Your task to perform on an android device: Clear all items from cart on ebay.com. Add logitech g910 to the cart on ebay.com Image 0: 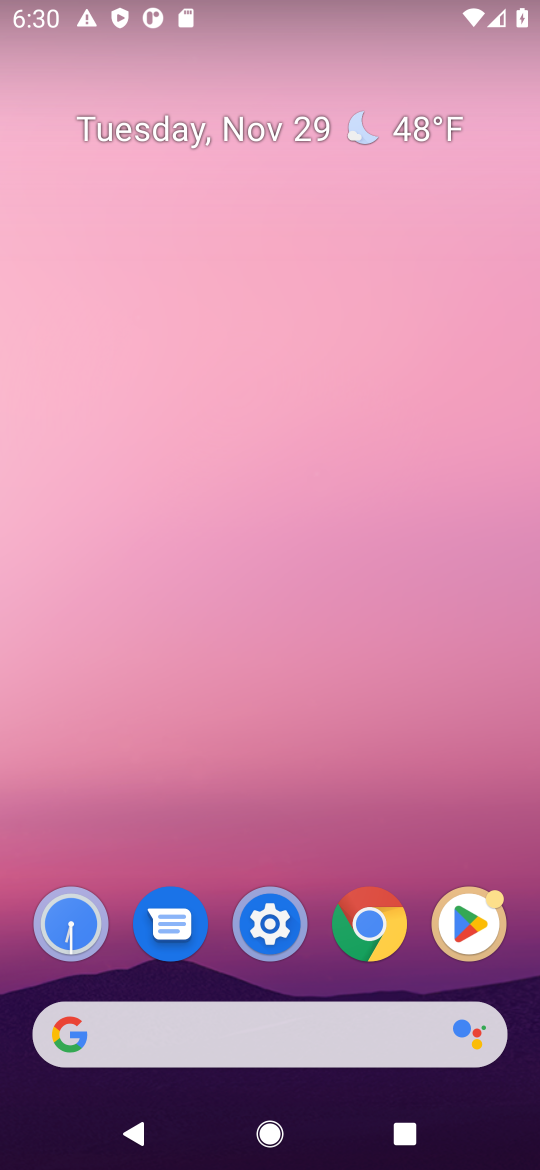
Step 0: click (270, 1024)
Your task to perform on an android device: Clear all items from cart on ebay.com. Add logitech g910 to the cart on ebay.com Image 1: 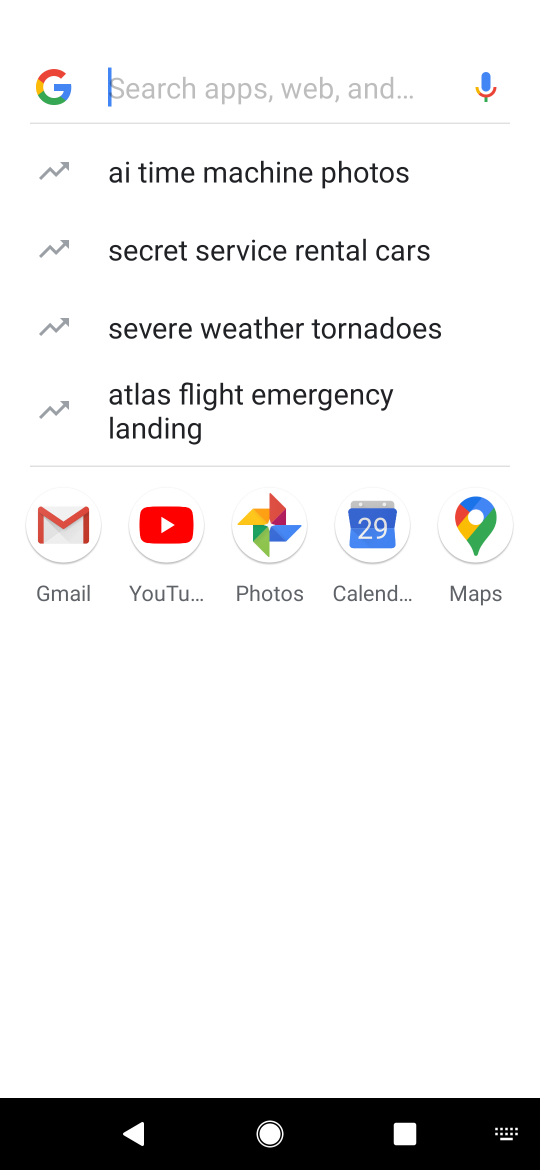
Step 1: type "ebbay.com"
Your task to perform on an android device: Clear all items from cart on ebay.com. Add logitech g910 to the cart on ebay.com Image 2: 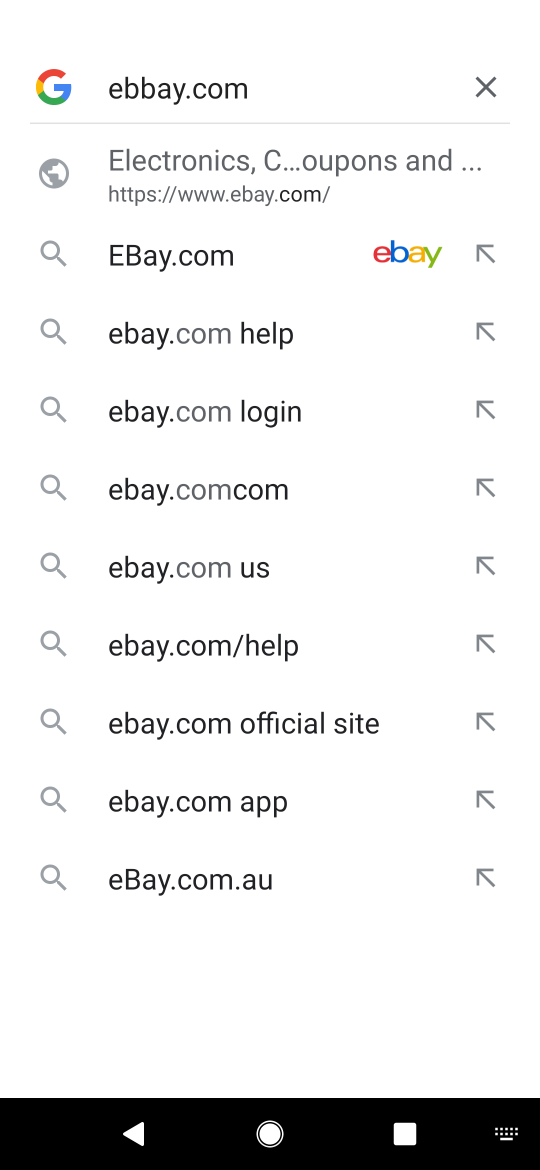
Step 2: click (158, 174)
Your task to perform on an android device: Clear all items from cart on ebay.com. Add logitech g910 to the cart on ebay.com Image 3: 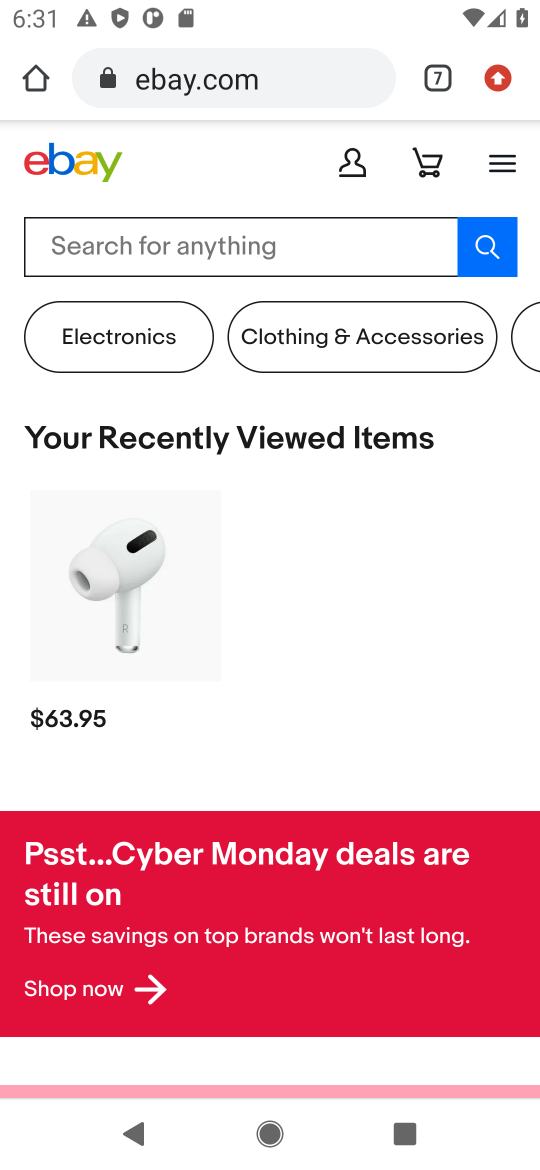
Step 3: click (332, 246)
Your task to perform on an android device: Clear all items from cart on ebay.com. Add logitech g910 to the cart on ebay.com Image 4: 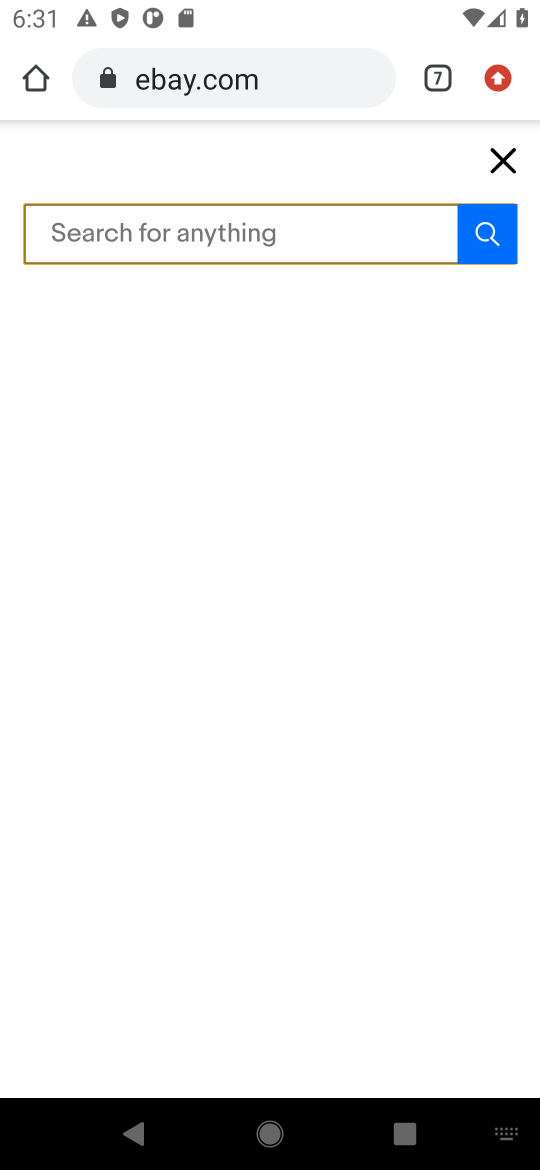
Step 4: type "logitech g910"
Your task to perform on an android device: Clear all items from cart on ebay.com. Add logitech g910 to the cart on ebay.com Image 5: 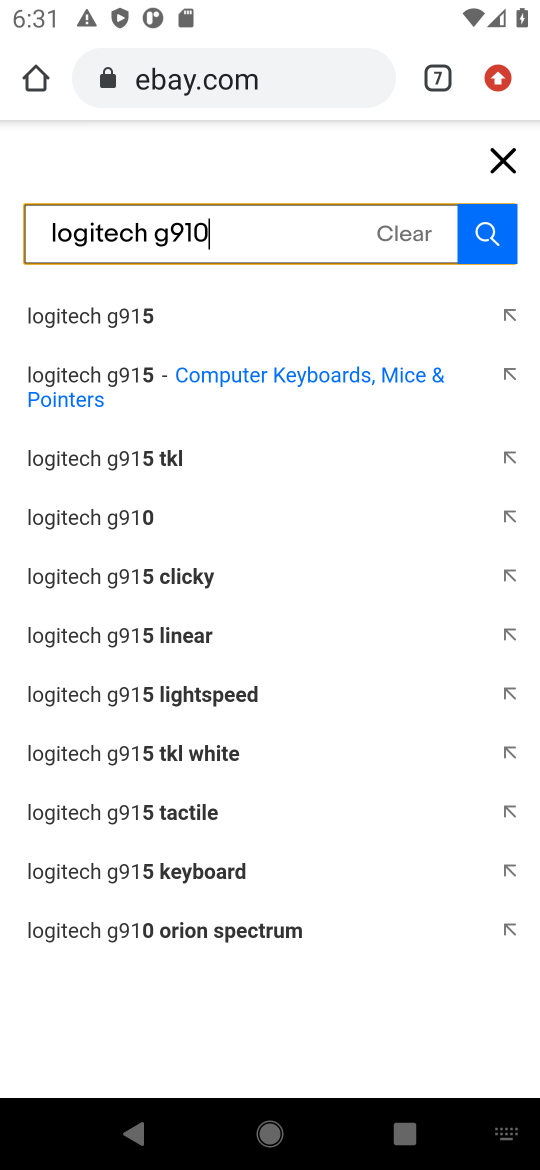
Step 5: click (476, 238)
Your task to perform on an android device: Clear all items from cart on ebay.com. Add logitech g910 to the cart on ebay.com Image 6: 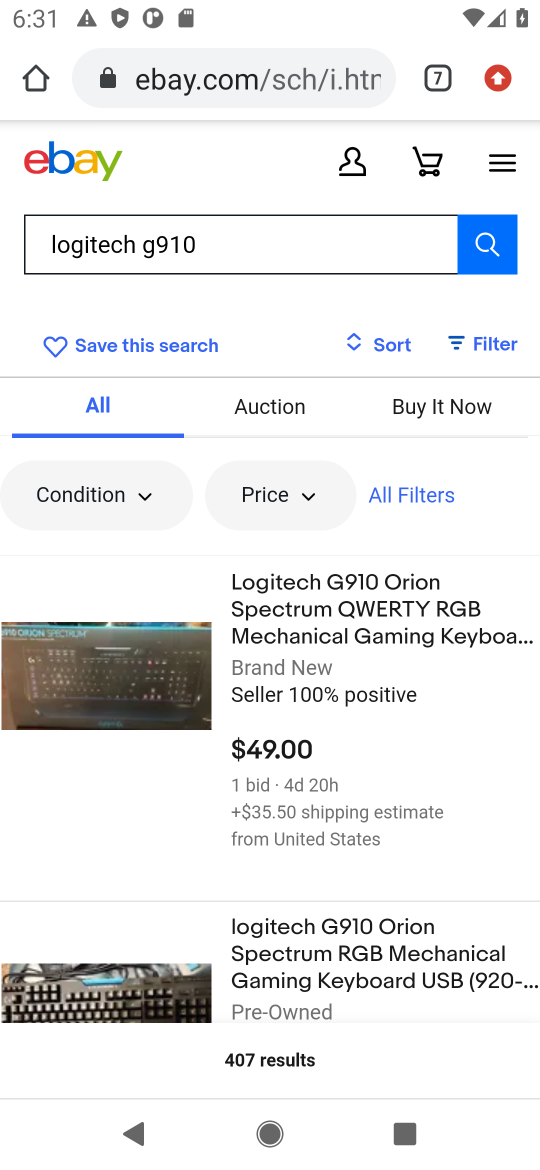
Step 6: click (298, 603)
Your task to perform on an android device: Clear all items from cart on ebay.com. Add logitech g910 to the cart on ebay.com Image 7: 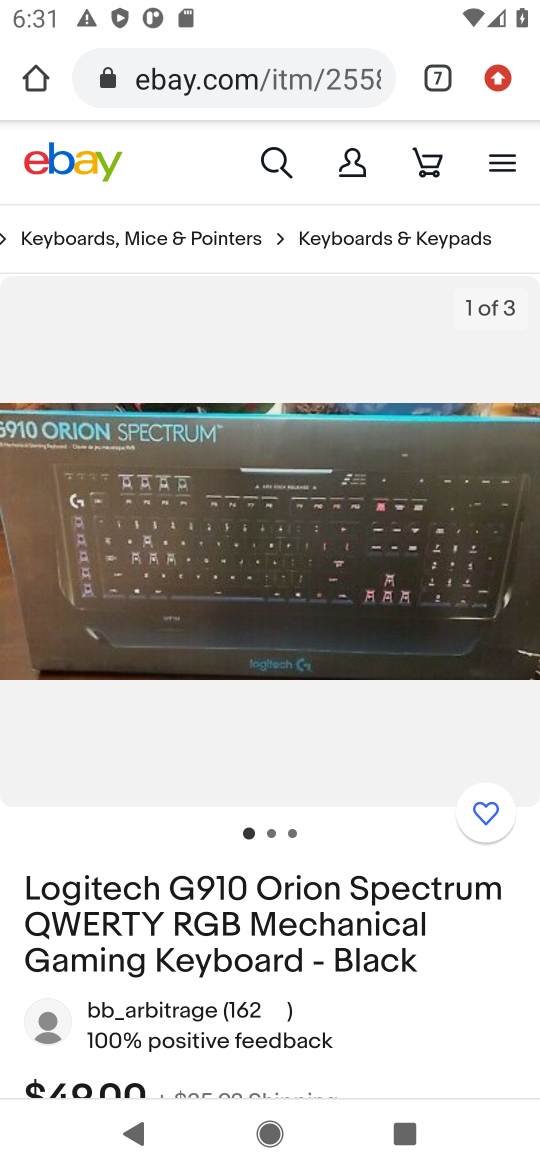
Step 7: drag from (234, 831) to (228, 339)
Your task to perform on an android device: Clear all items from cart on ebay.com. Add logitech g910 to the cart on ebay.com Image 8: 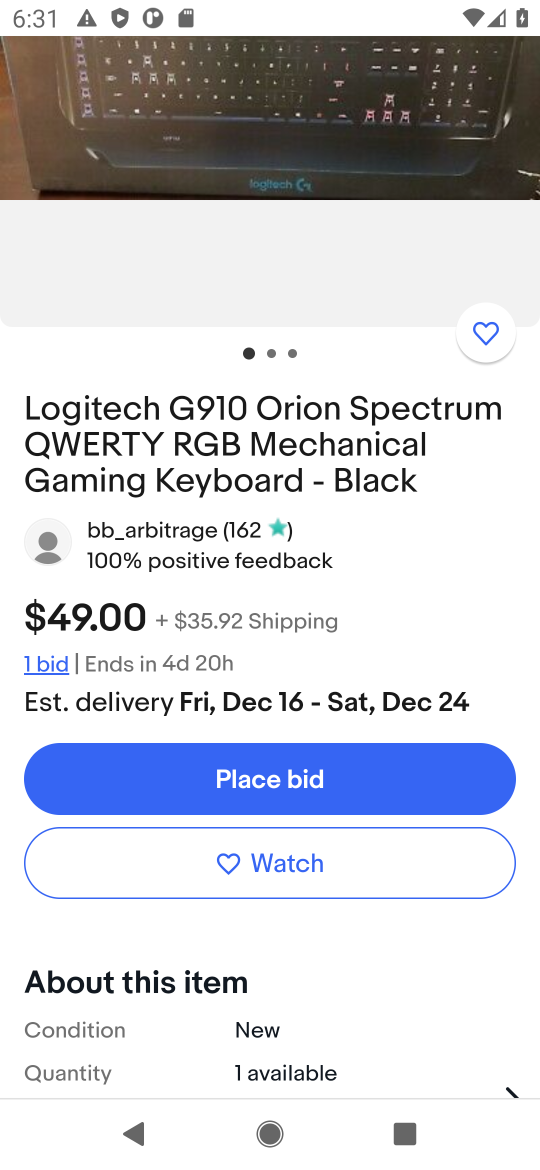
Step 8: click (280, 772)
Your task to perform on an android device: Clear all items from cart on ebay.com. Add logitech g910 to the cart on ebay.com Image 9: 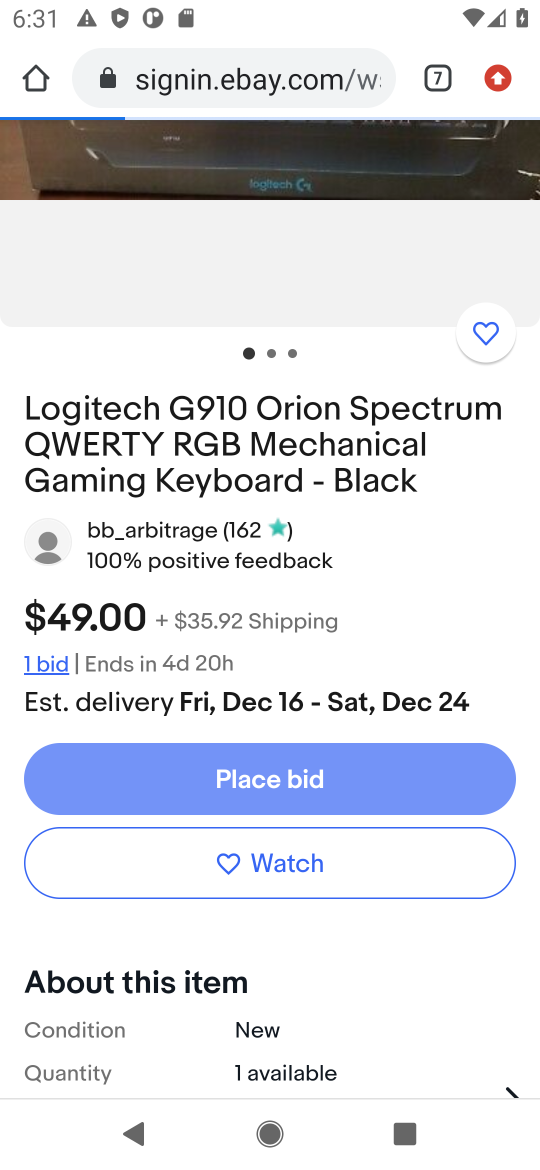
Step 9: task complete